Your task to perform on an android device: turn off wifi Image 0: 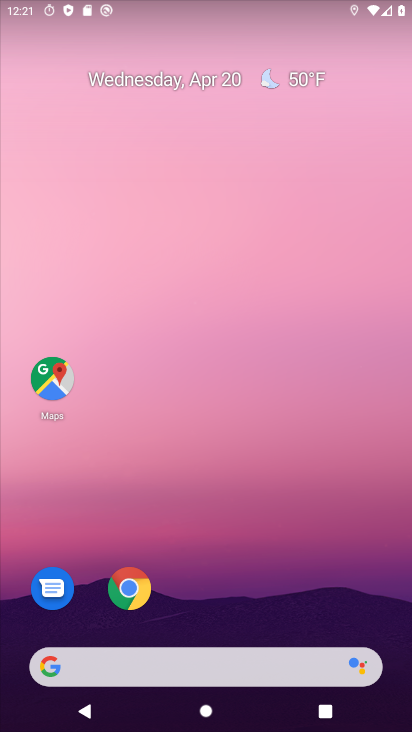
Step 0: drag from (196, 620) to (190, 208)
Your task to perform on an android device: turn off wifi Image 1: 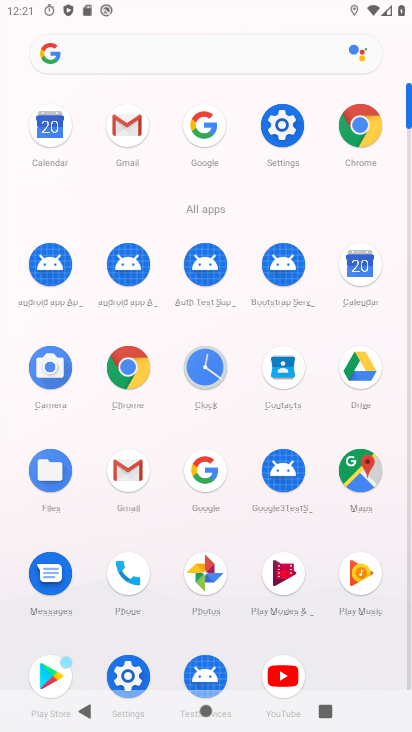
Step 1: click (277, 140)
Your task to perform on an android device: turn off wifi Image 2: 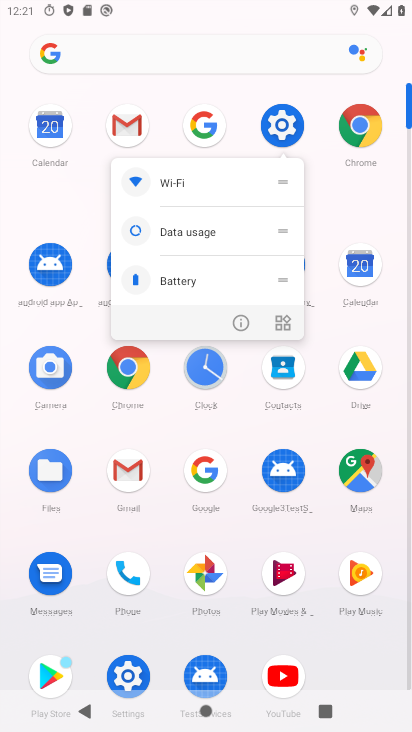
Step 2: click (279, 133)
Your task to perform on an android device: turn off wifi Image 3: 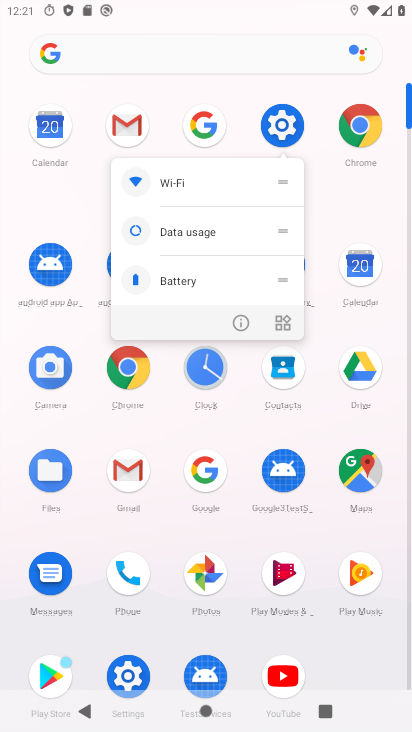
Step 3: click (279, 127)
Your task to perform on an android device: turn off wifi Image 4: 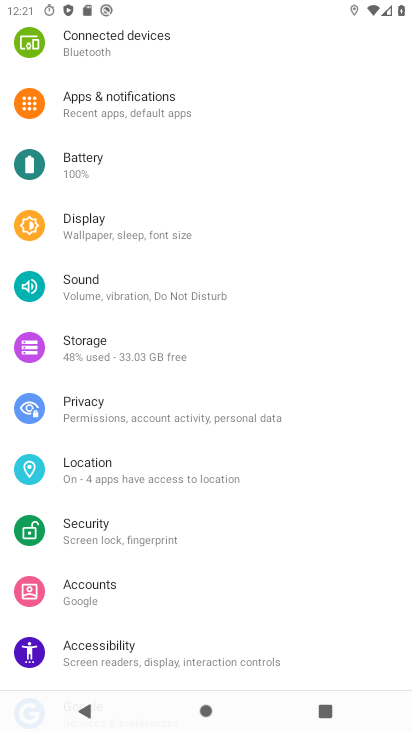
Step 4: drag from (155, 225) to (165, 605)
Your task to perform on an android device: turn off wifi Image 5: 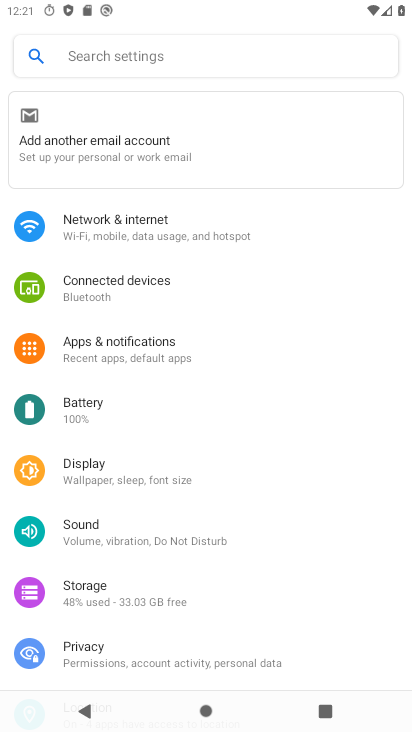
Step 5: click (134, 225)
Your task to perform on an android device: turn off wifi Image 6: 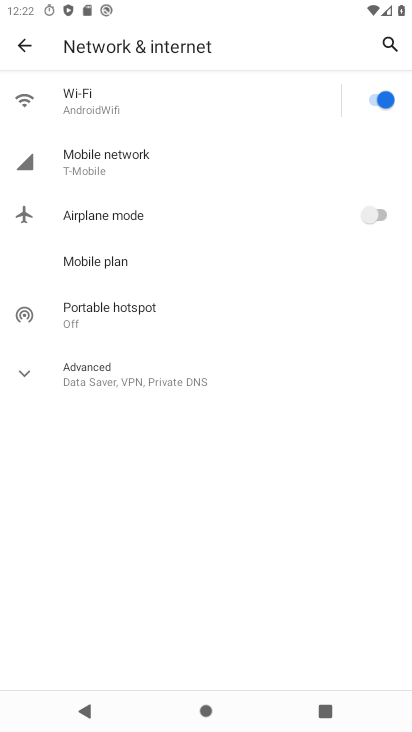
Step 6: click (382, 100)
Your task to perform on an android device: turn off wifi Image 7: 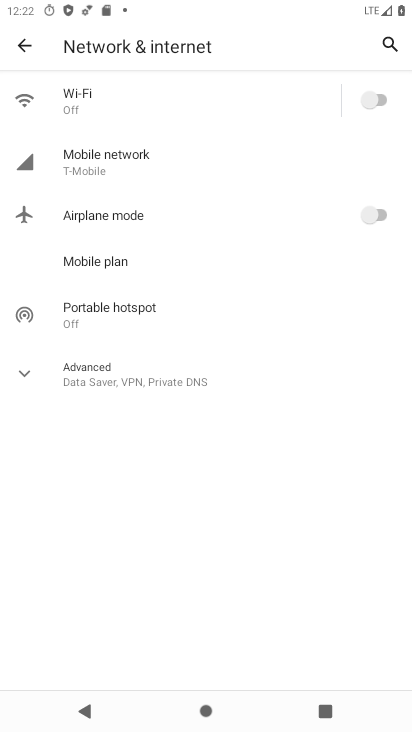
Step 7: task complete